Your task to perform on an android device: Search for vegetarian restaurants on Maps Image 0: 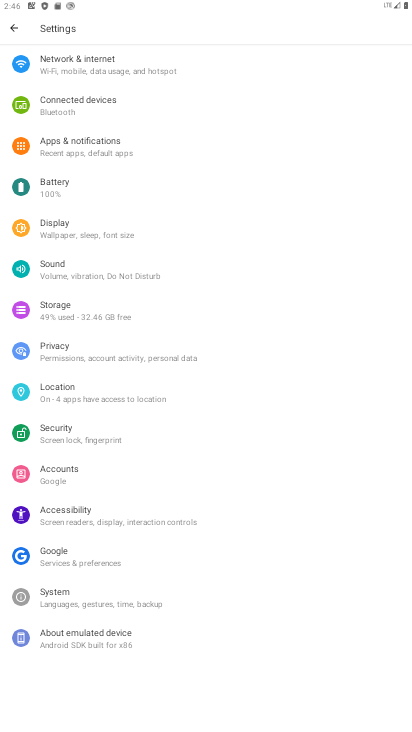
Step 0: press home button
Your task to perform on an android device: Search for vegetarian restaurants on Maps Image 1: 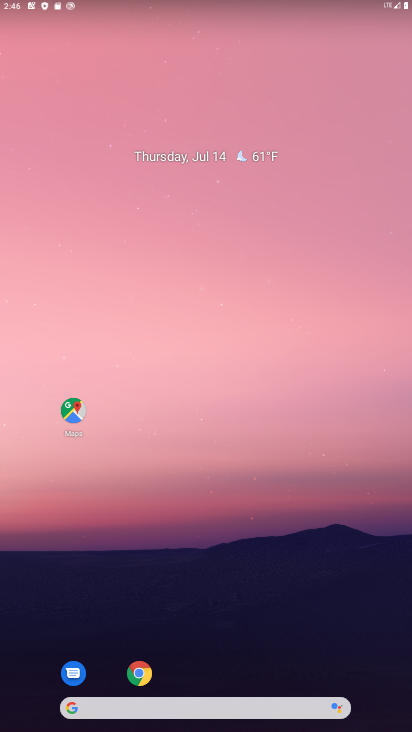
Step 1: click (67, 420)
Your task to perform on an android device: Search for vegetarian restaurants on Maps Image 2: 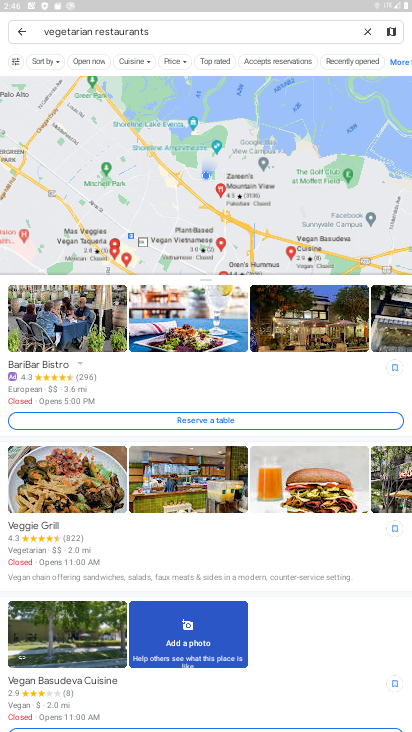
Step 2: task complete